Your task to perform on an android device: Open location settings Image 0: 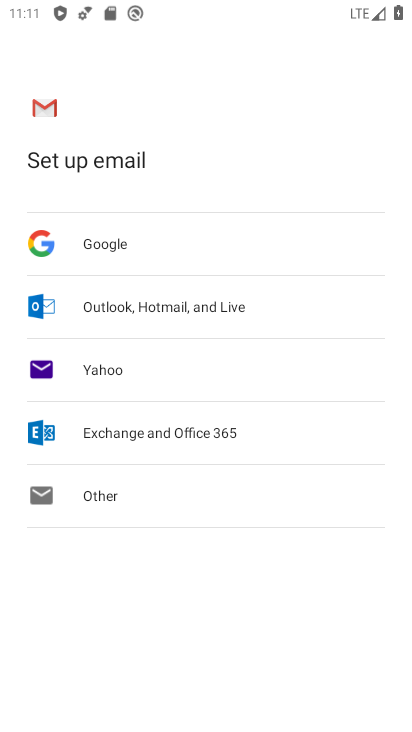
Step 0: press home button
Your task to perform on an android device: Open location settings Image 1: 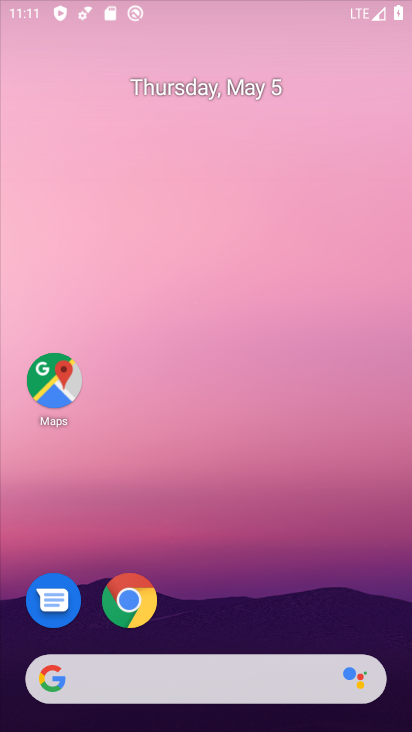
Step 1: drag from (388, 624) to (333, 68)
Your task to perform on an android device: Open location settings Image 2: 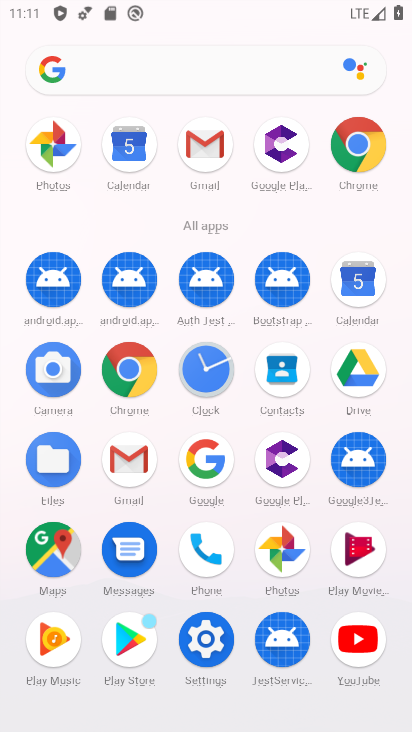
Step 2: click (204, 642)
Your task to perform on an android device: Open location settings Image 3: 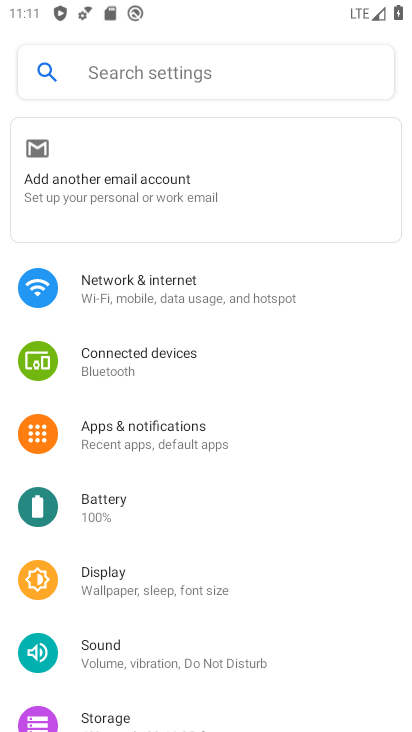
Step 3: drag from (114, 634) to (251, 197)
Your task to perform on an android device: Open location settings Image 4: 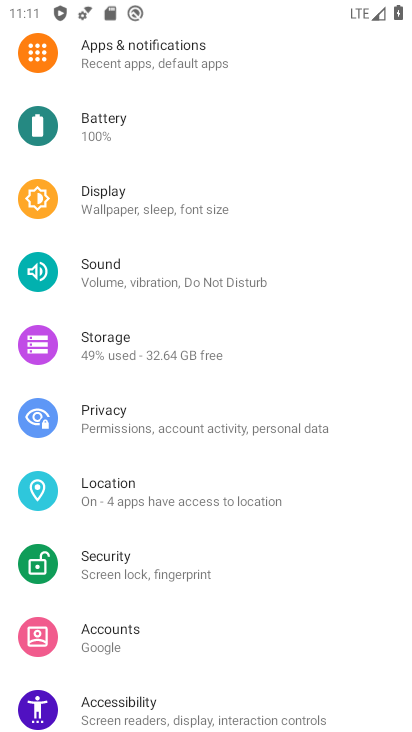
Step 4: click (129, 496)
Your task to perform on an android device: Open location settings Image 5: 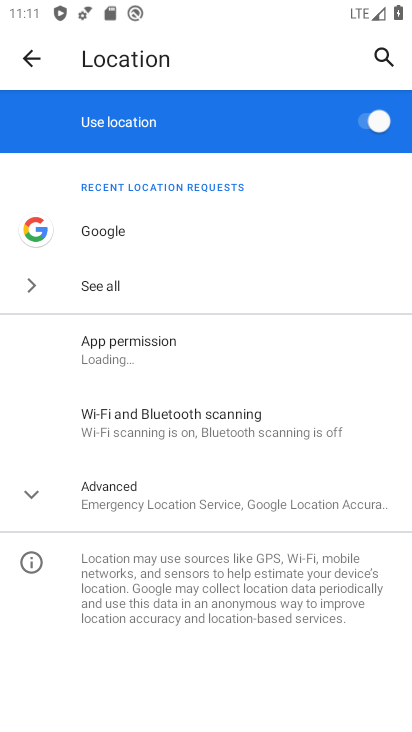
Step 5: task complete